Your task to perform on an android device: check android version Image 0: 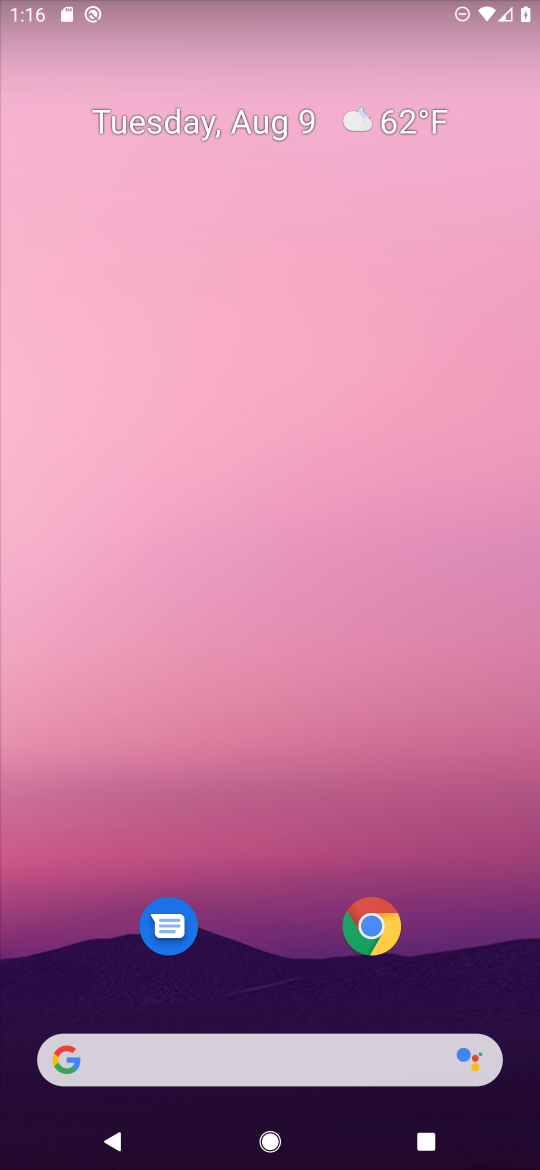
Step 0: drag from (34, 869) to (303, 169)
Your task to perform on an android device: check android version Image 1: 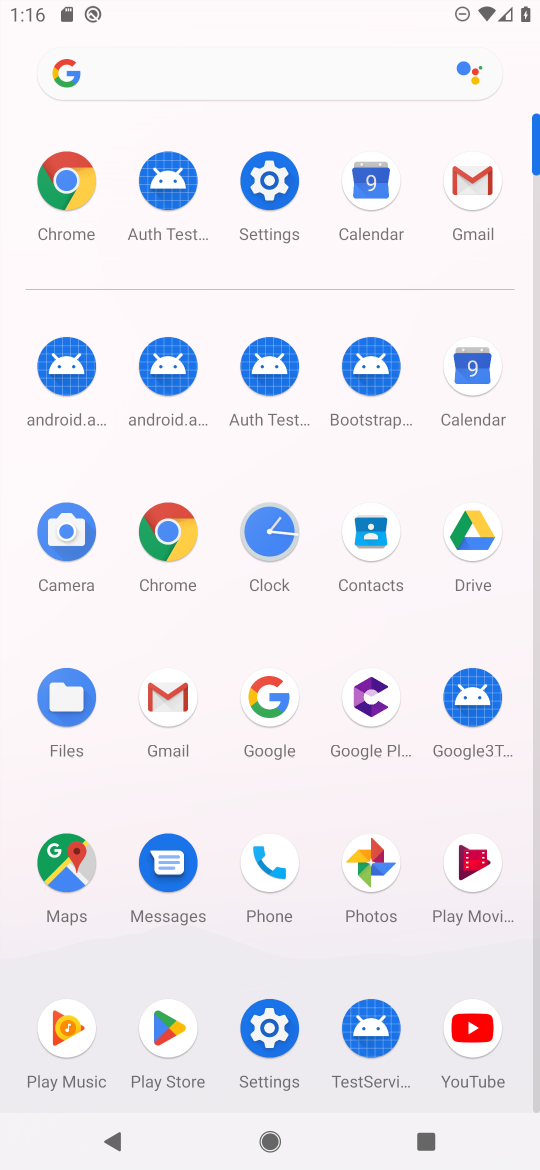
Step 1: click (277, 170)
Your task to perform on an android device: check android version Image 2: 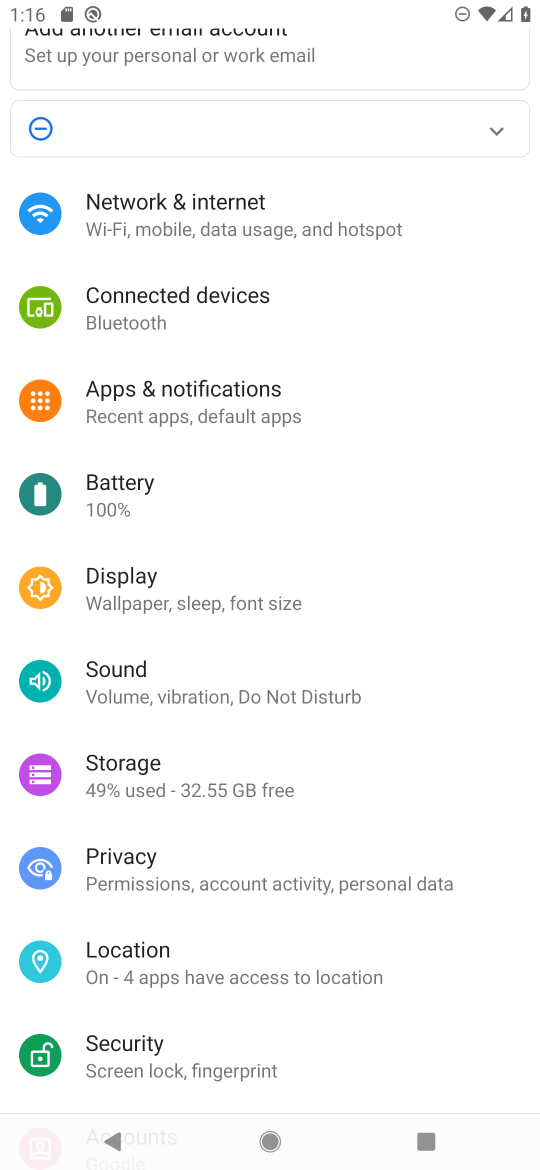
Step 2: drag from (1, 1169) to (368, 158)
Your task to perform on an android device: check android version Image 3: 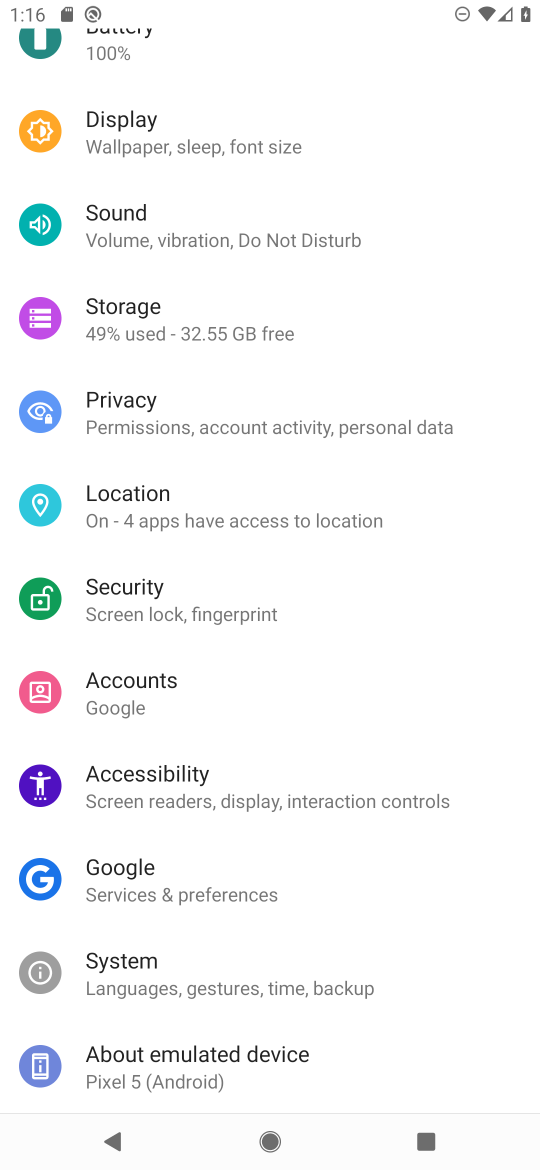
Step 3: drag from (179, 667) to (336, 301)
Your task to perform on an android device: check android version Image 4: 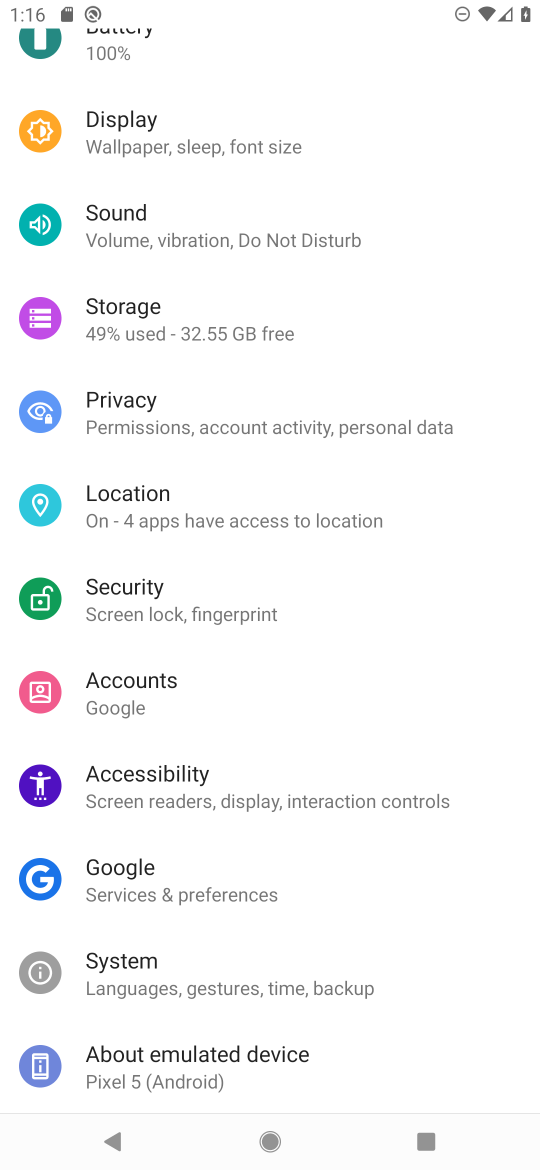
Step 4: click (190, 1089)
Your task to perform on an android device: check android version Image 5: 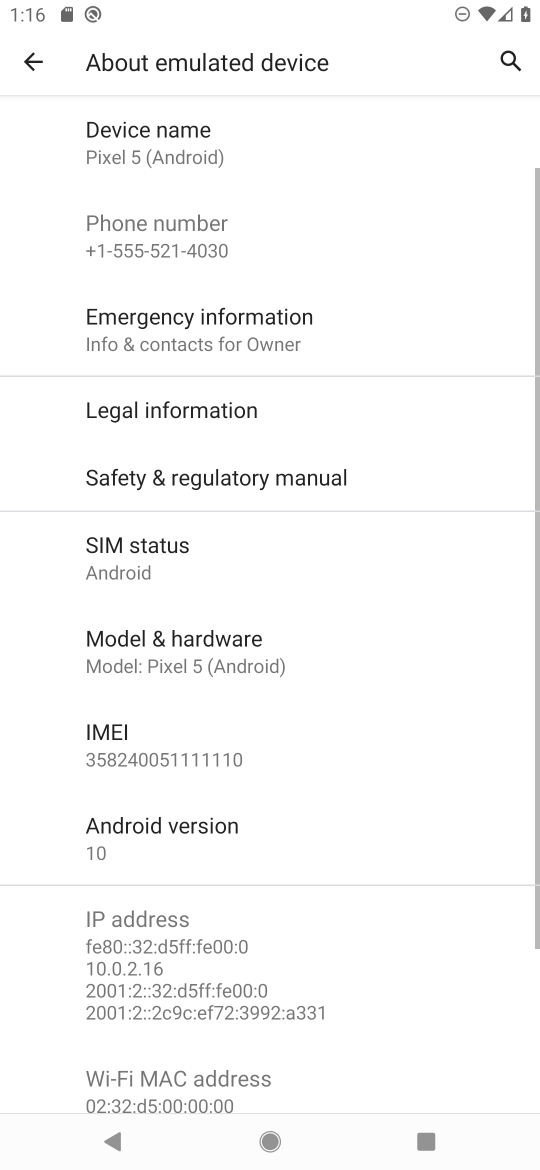
Step 5: click (225, 846)
Your task to perform on an android device: check android version Image 6: 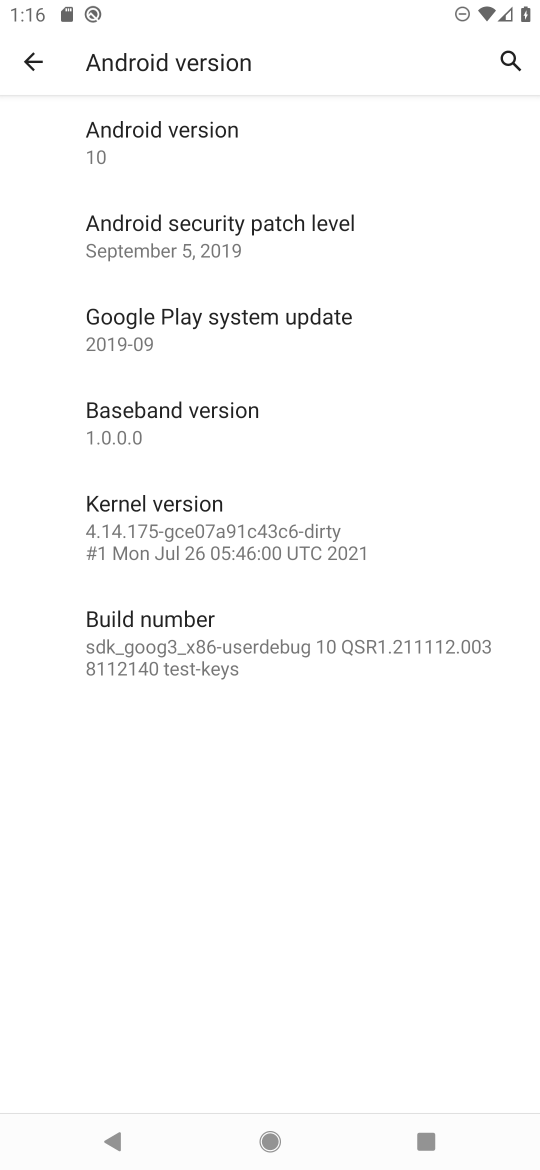
Step 6: click (128, 147)
Your task to perform on an android device: check android version Image 7: 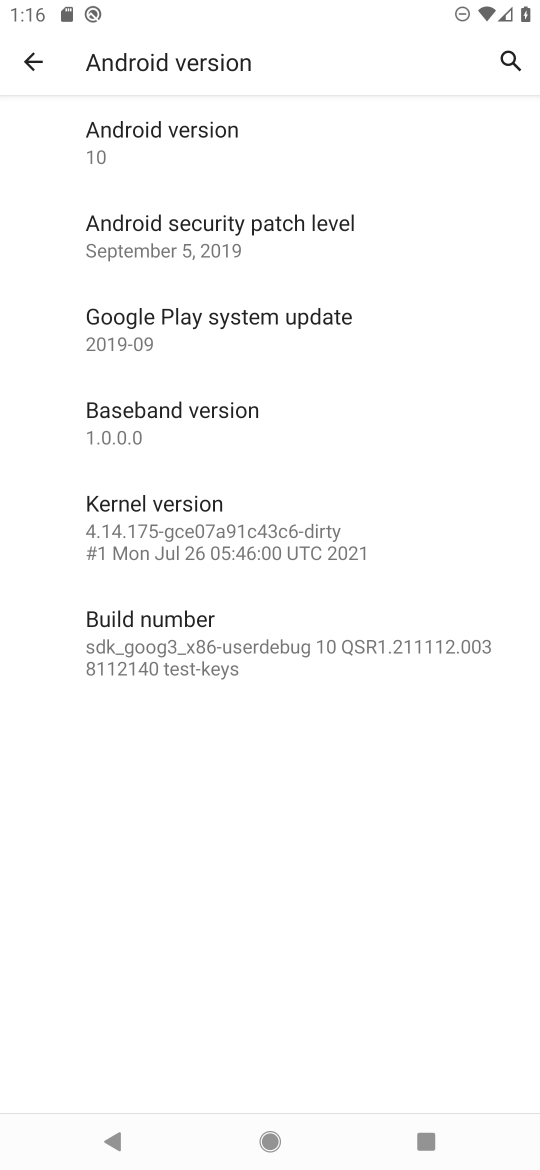
Step 7: task complete